Your task to perform on an android device: clear history in the chrome app Image 0: 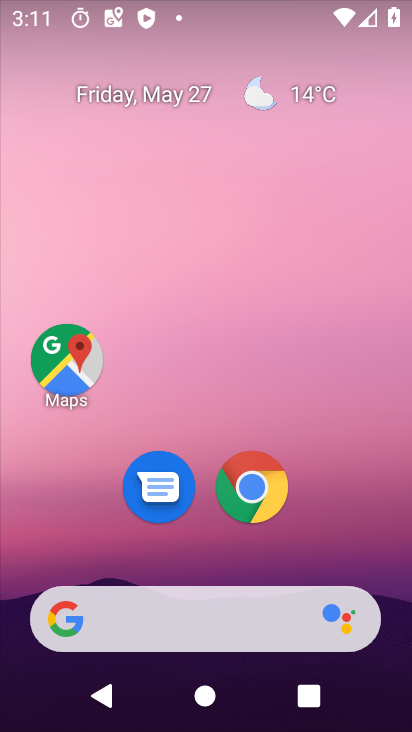
Step 0: click (259, 480)
Your task to perform on an android device: clear history in the chrome app Image 1: 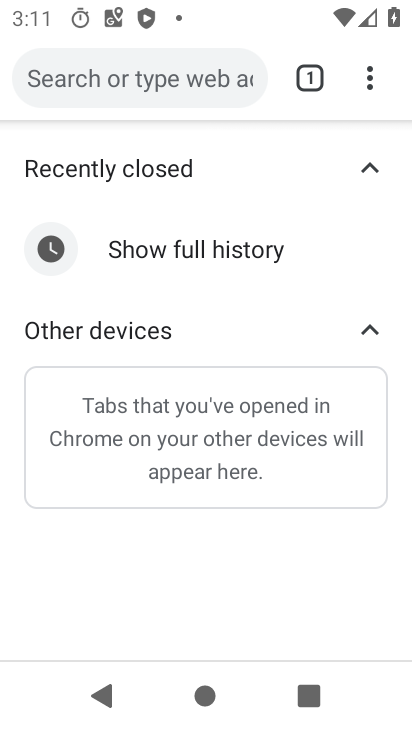
Step 1: drag from (373, 70) to (121, 436)
Your task to perform on an android device: clear history in the chrome app Image 2: 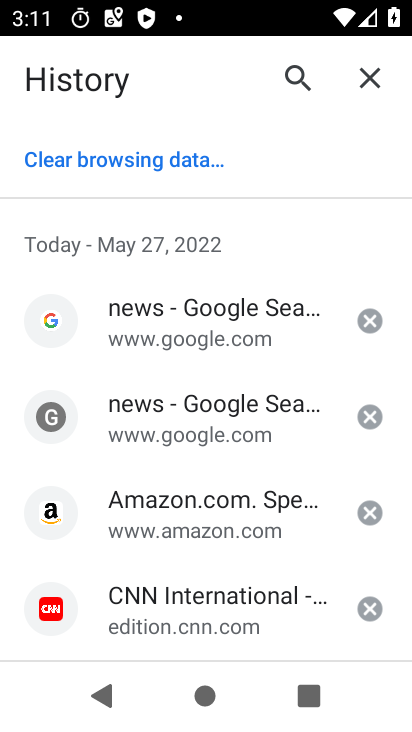
Step 2: click (161, 159)
Your task to perform on an android device: clear history in the chrome app Image 3: 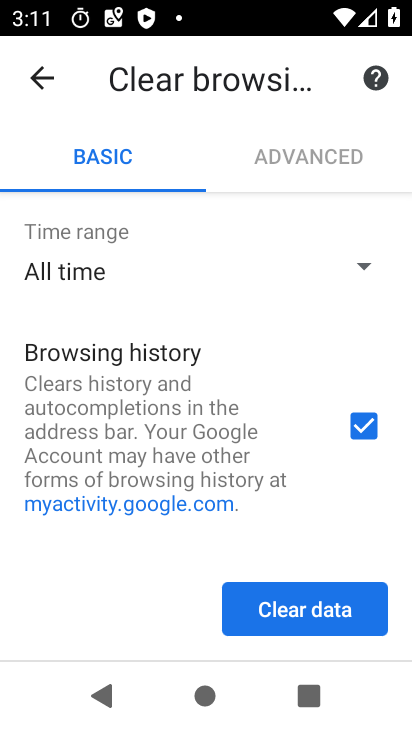
Step 3: drag from (231, 459) to (229, 187)
Your task to perform on an android device: clear history in the chrome app Image 4: 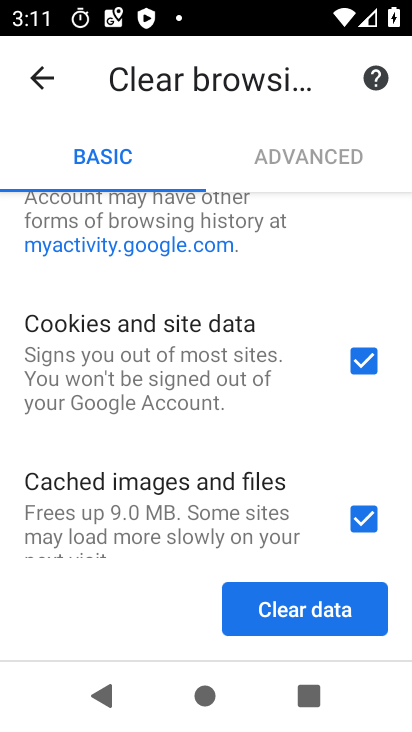
Step 4: click (300, 597)
Your task to perform on an android device: clear history in the chrome app Image 5: 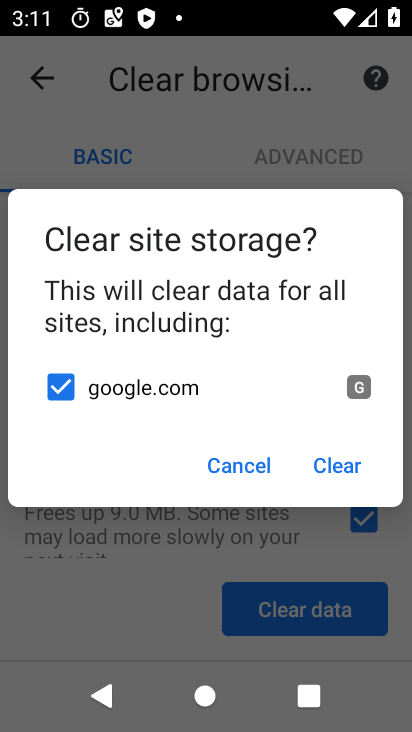
Step 5: click (332, 471)
Your task to perform on an android device: clear history in the chrome app Image 6: 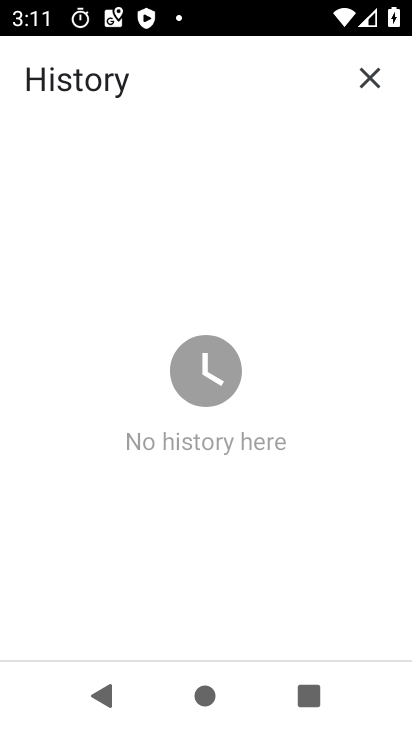
Step 6: task complete